Your task to perform on an android device: turn on airplane mode Image 0: 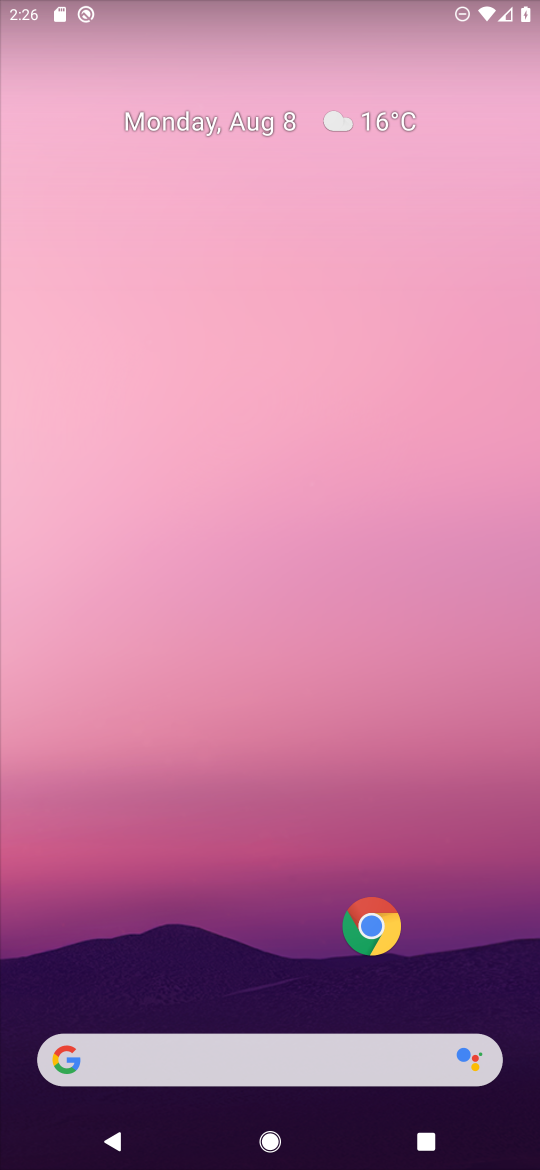
Step 0: drag from (218, 1023) to (275, 449)
Your task to perform on an android device: turn on airplane mode Image 1: 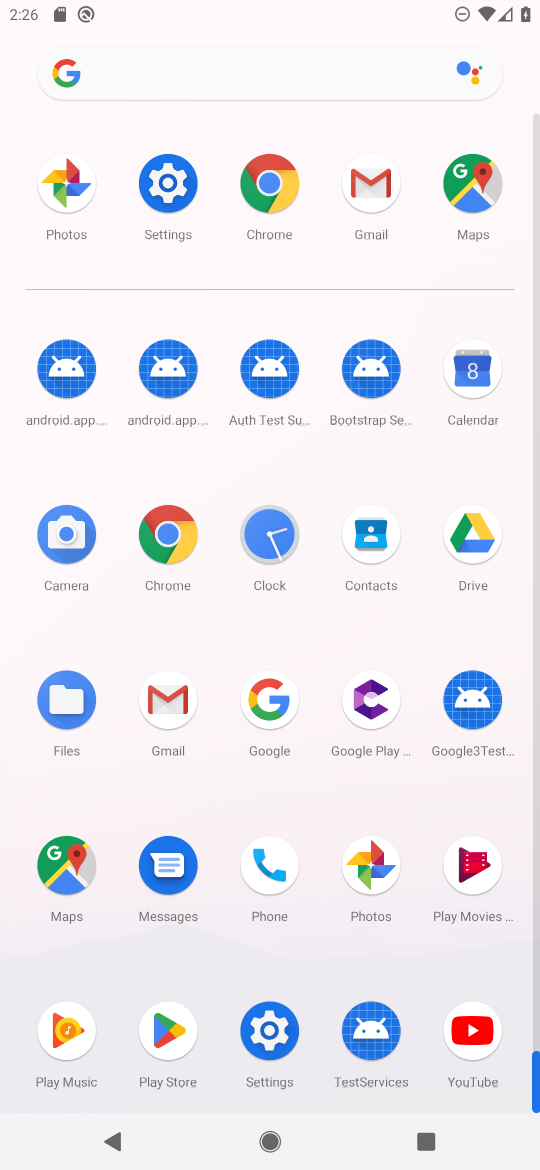
Step 1: click (155, 190)
Your task to perform on an android device: turn on airplane mode Image 2: 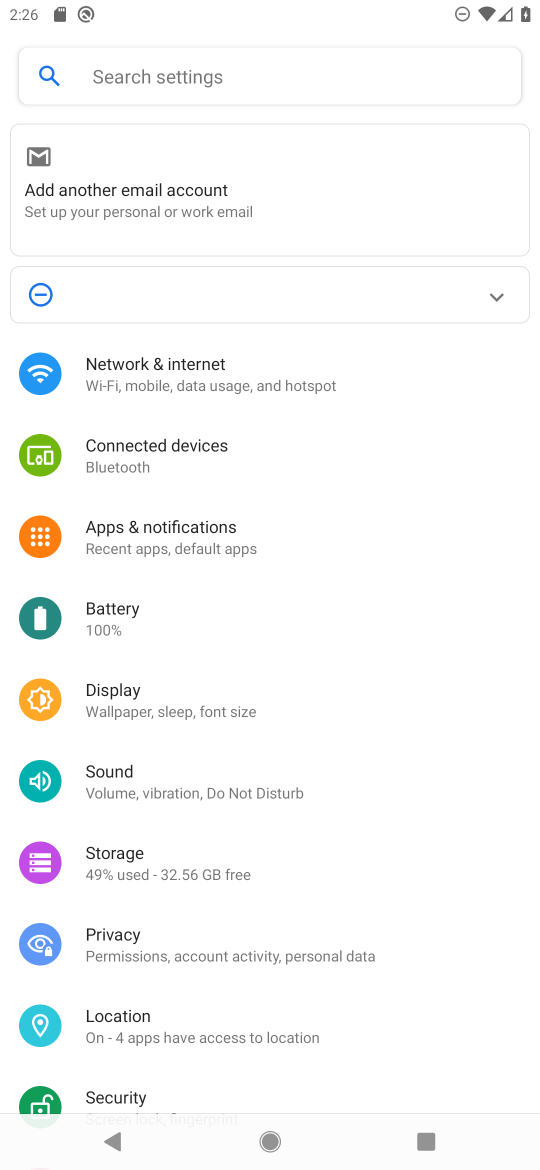
Step 2: click (193, 388)
Your task to perform on an android device: turn on airplane mode Image 3: 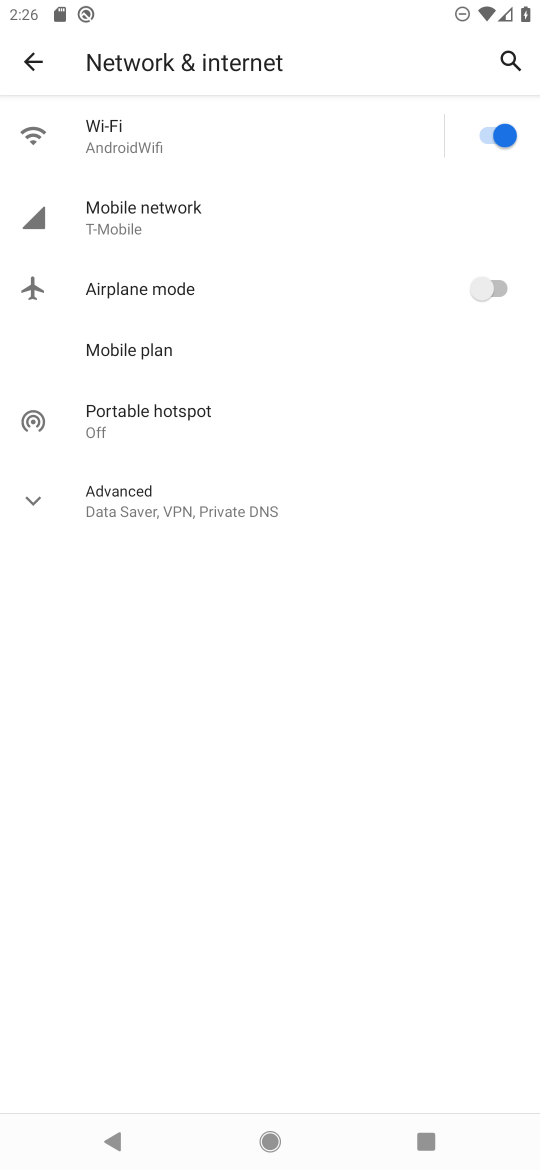
Step 3: click (483, 287)
Your task to perform on an android device: turn on airplane mode Image 4: 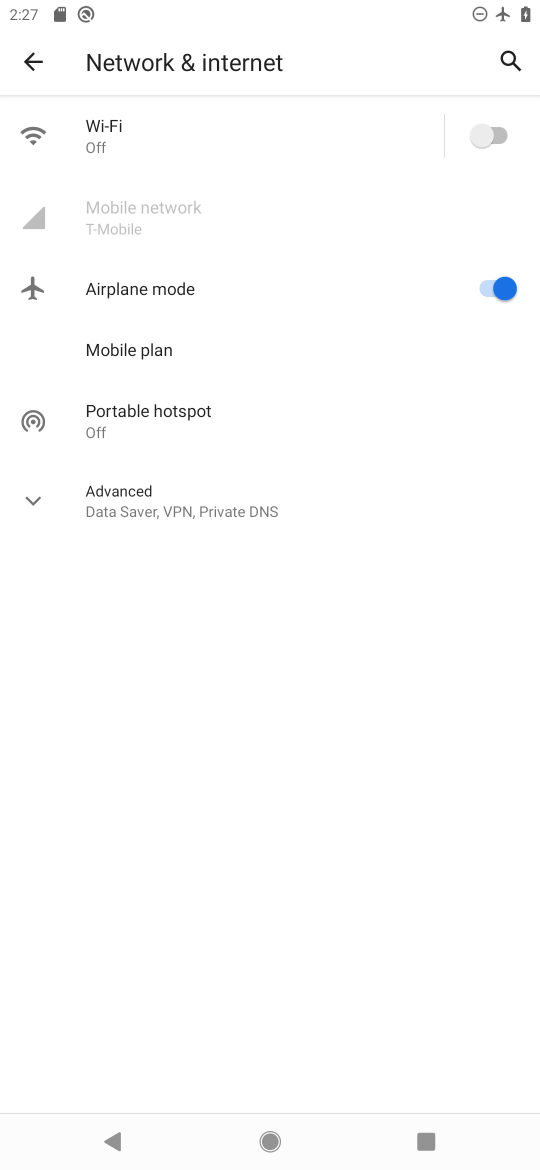
Step 4: task complete